Your task to perform on an android device: turn notification dots off Image 0: 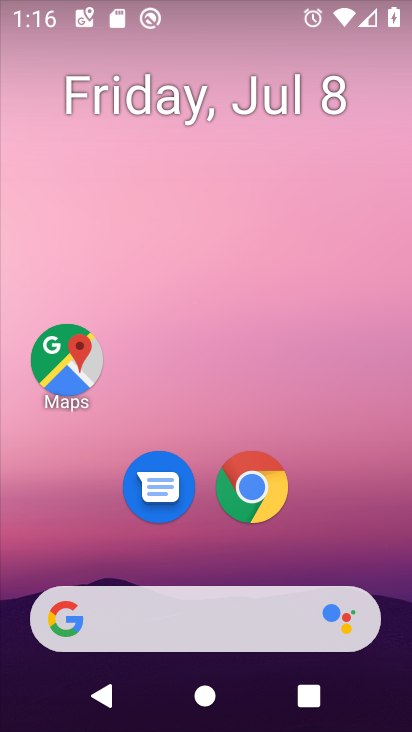
Step 0: drag from (365, 534) to (363, 153)
Your task to perform on an android device: turn notification dots off Image 1: 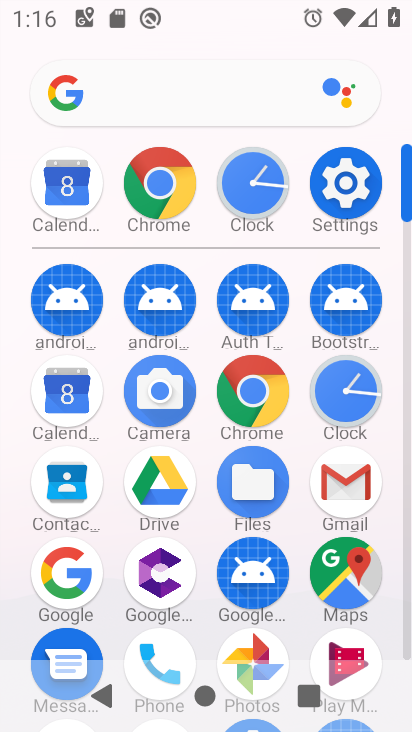
Step 1: click (363, 199)
Your task to perform on an android device: turn notification dots off Image 2: 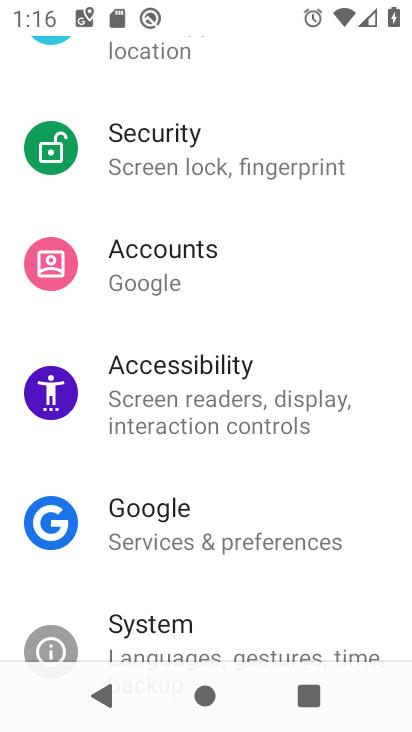
Step 2: drag from (360, 472) to (362, 275)
Your task to perform on an android device: turn notification dots off Image 3: 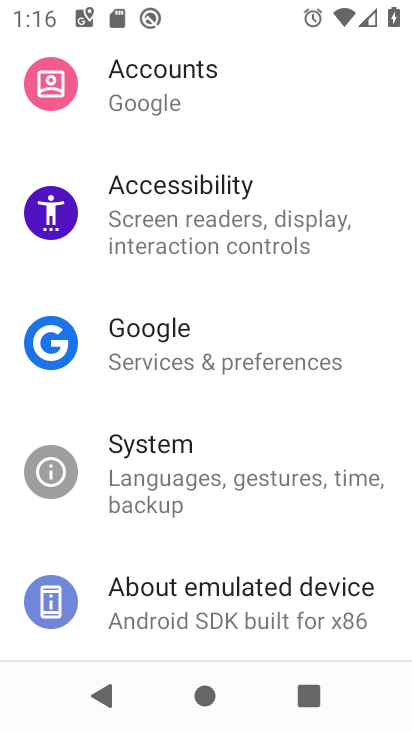
Step 3: drag from (356, 419) to (359, 250)
Your task to perform on an android device: turn notification dots off Image 4: 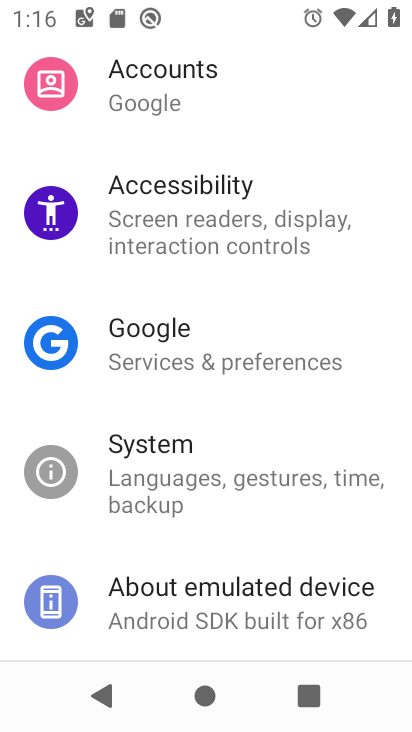
Step 4: drag from (373, 260) to (359, 398)
Your task to perform on an android device: turn notification dots off Image 5: 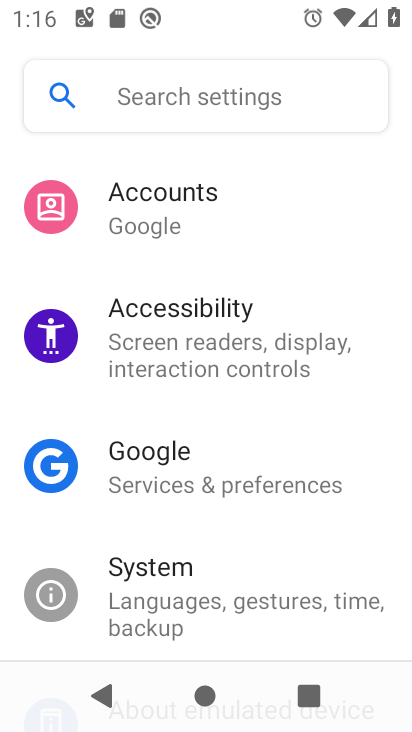
Step 5: drag from (347, 248) to (352, 416)
Your task to perform on an android device: turn notification dots off Image 6: 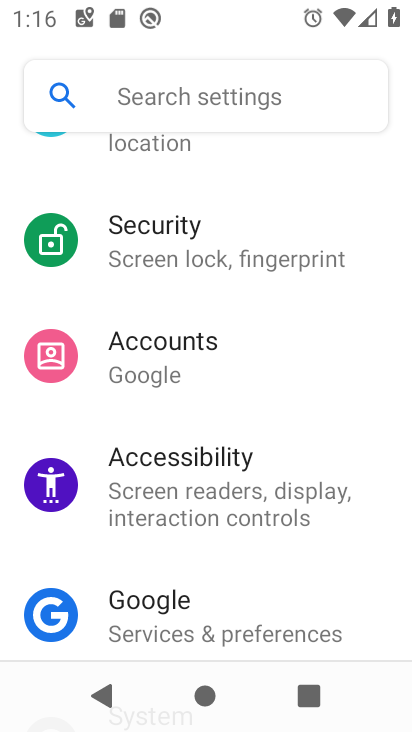
Step 6: drag from (362, 262) to (362, 397)
Your task to perform on an android device: turn notification dots off Image 7: 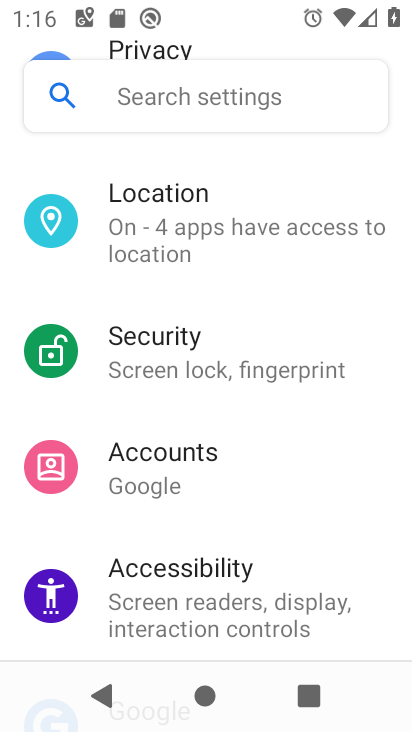
Step 7: drag from (363, 275) to (360, 385)
Your task to perform on an android device: turn notification dots off Image 8: 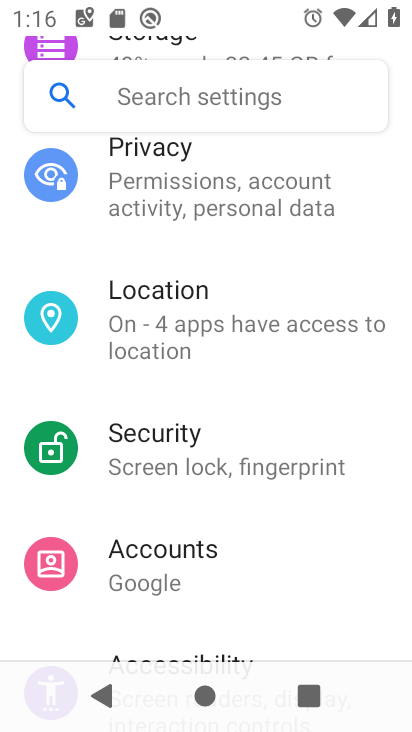
Step 8: drag from (366, 250) to (369, 373)
Your task to perform on an android device: turn notification dots off Image 9: 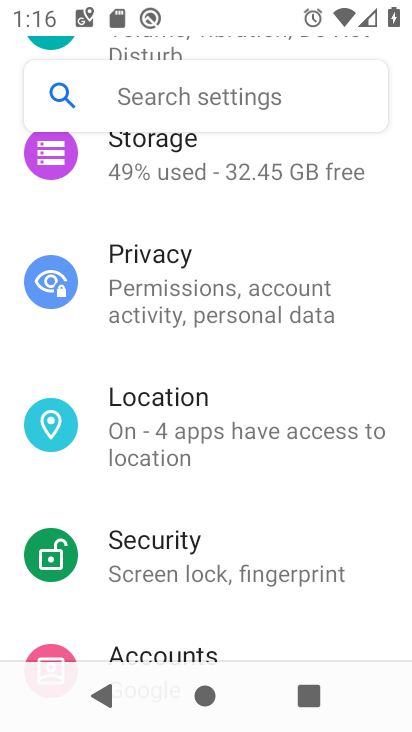
Step 9: drag from (374, 231) to (371, 350)
Your task to perform on an android device: turn notification dots off Image 10: 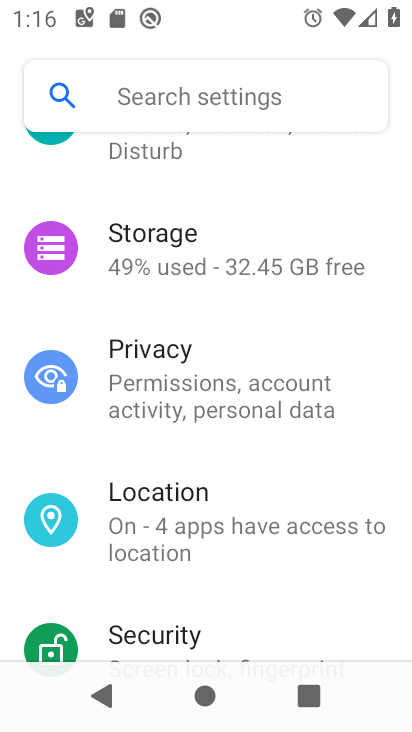
Step 10: drag from (380, 221) to (381, 388)
Your task to perform on an android device: turn notification dots off Image 11: 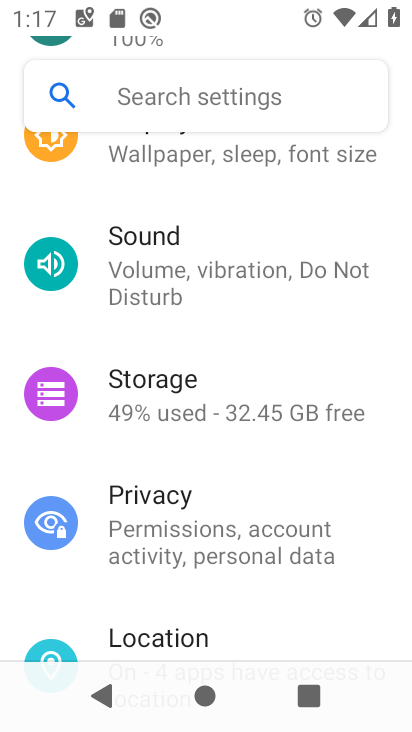
Step 11: drag from (374, 221) to (355, 362)
Your task to perform on an android device: turn notification dots off Image 12: 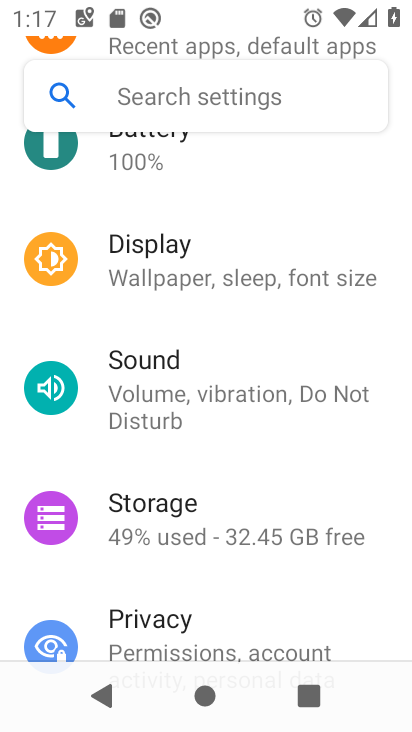
Step 12: drag from (372, 205) to (356, 371)
Your task to perform on an android device: turn notification dots off Image 13: 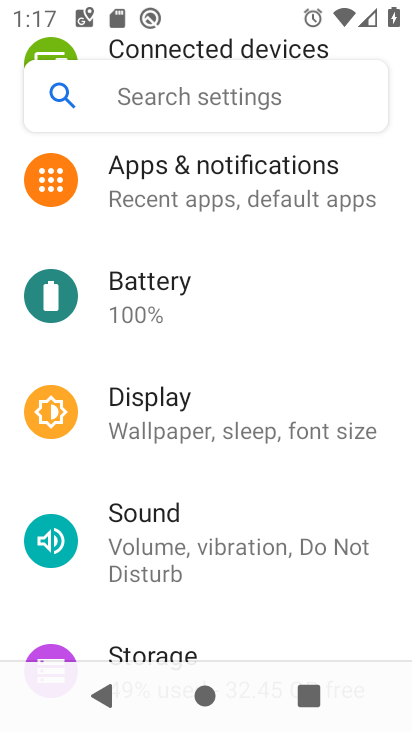
Step 13: drag from (374, 165) to (367, 316)
Your task to perform on an android device: turn notification dots off Image 14: 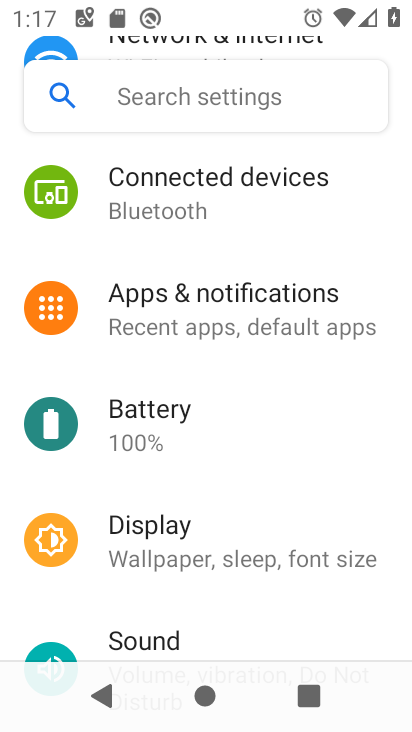
Step 14: click (295, 293)
Your task to perform on an android device: turn notification dots off Image 15: 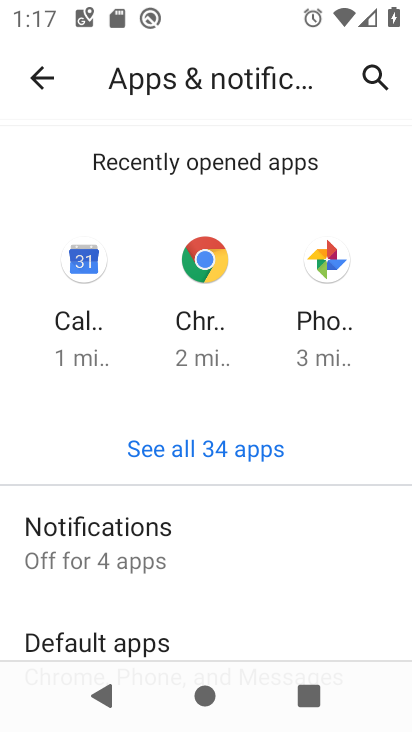
Step 15: drag from (284, 549) to (306, 337)
Your task to perform on an android device: turn notification dots off Image 16: 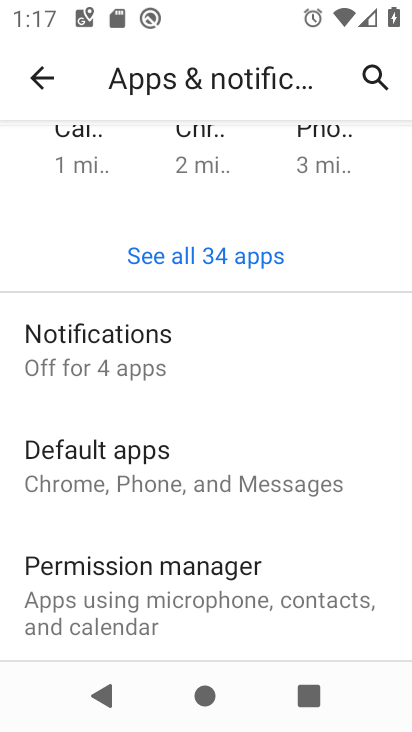
Step 16: click (306, 337)
Your task to perform on an android device: turn notification dots off Image 17: 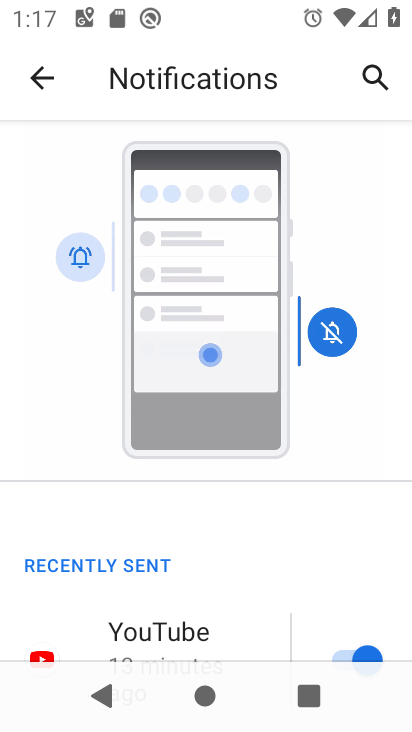
Step 17: drag from (305, 527) to (309, 414)
Your task to perform on an android device: turn notification dots off Image 18: 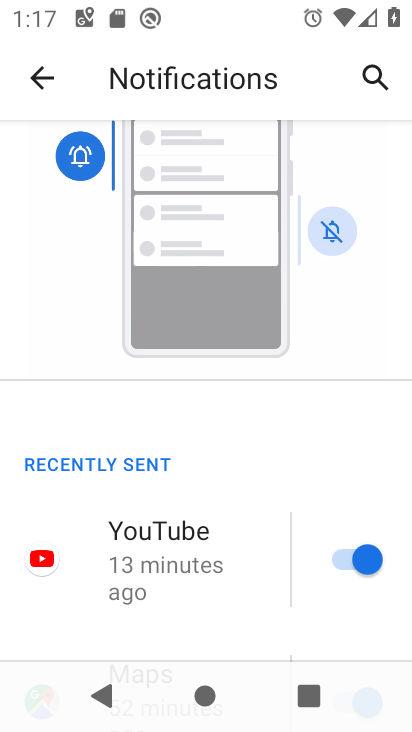
Step 18: drag from (264, 554) to (275, 429)
Your task to perform on an android device: turn notification dots off Image 19: 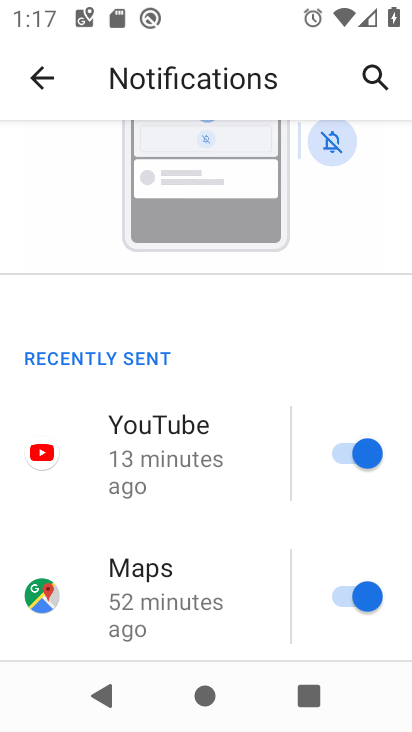
Step 19: drag from (249, 552) to (260, 361)
Your task to perform on an android device: turn notification dots off Image 20: 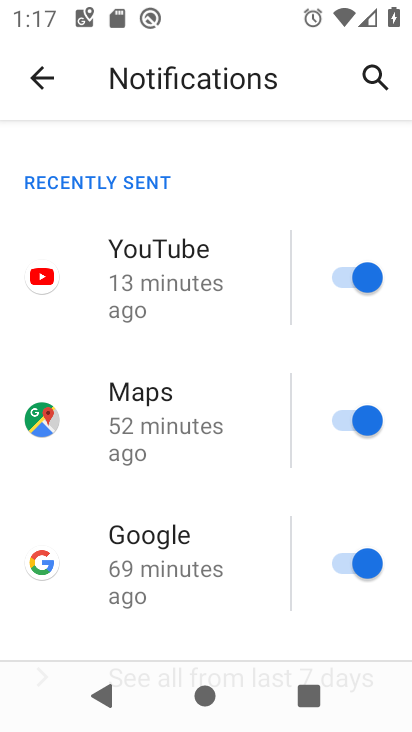
Step 20: drag from (264, 505) to (253, 341)
Your task to perform on an android device: turn notification dots off Image 21: 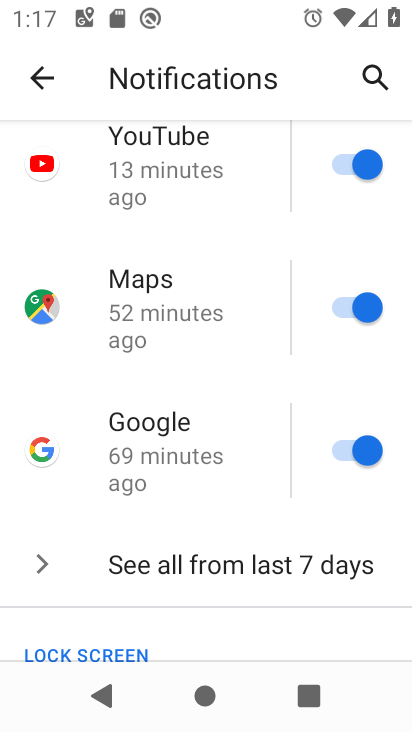
Step 21: drag from (247, 510) to (255, 360)
Your task to perform on an android device: turn notification dots off Image 22: 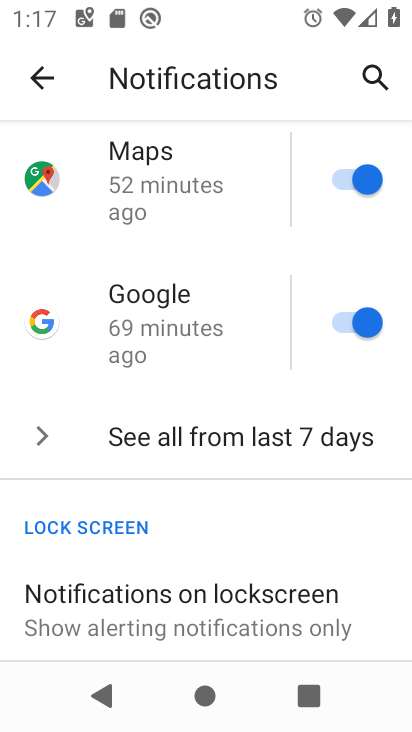
Step 22: drag from (276, 490) to (291, 330)
Your task to perform on an android device: turn notification dots off Image 23: 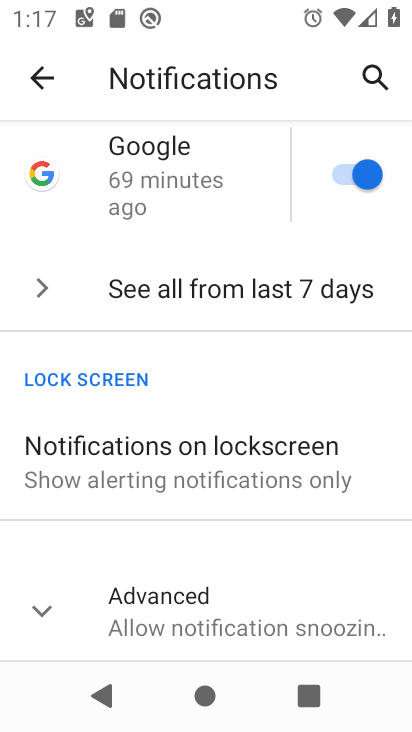
Step 23: click (327, 575)
Your task to perform on an android device: turn notification dots off Image 24: 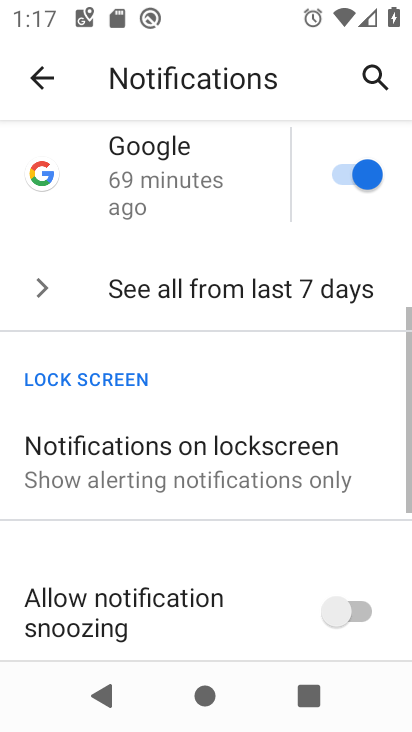
Step 24: task complete